Your task to perform on an android device: What are the best selling refrigerators at Home Depot? Image 0: 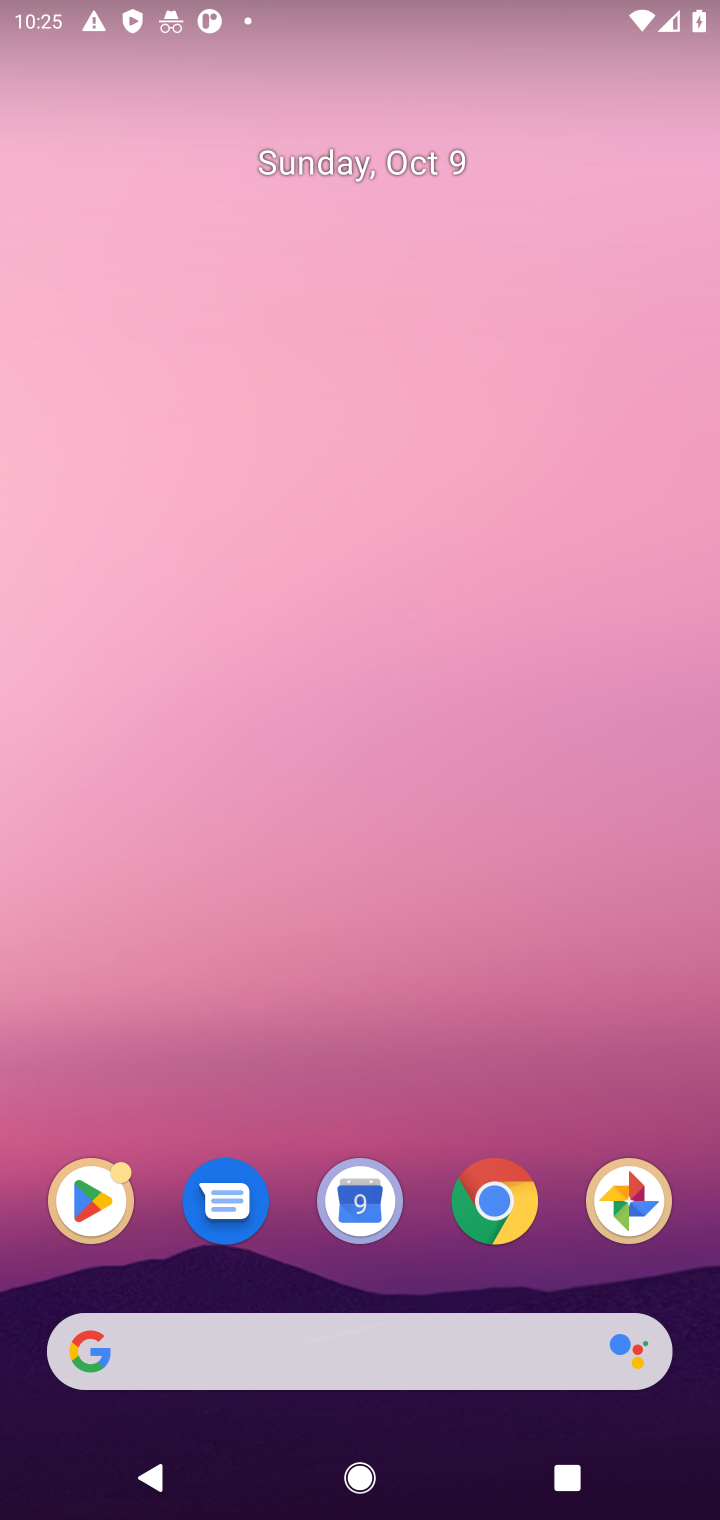
Step 0: click (489, 1211)
Your task to perform on an android device: What are the best selling refrigerators at Home Depot? Image 1: 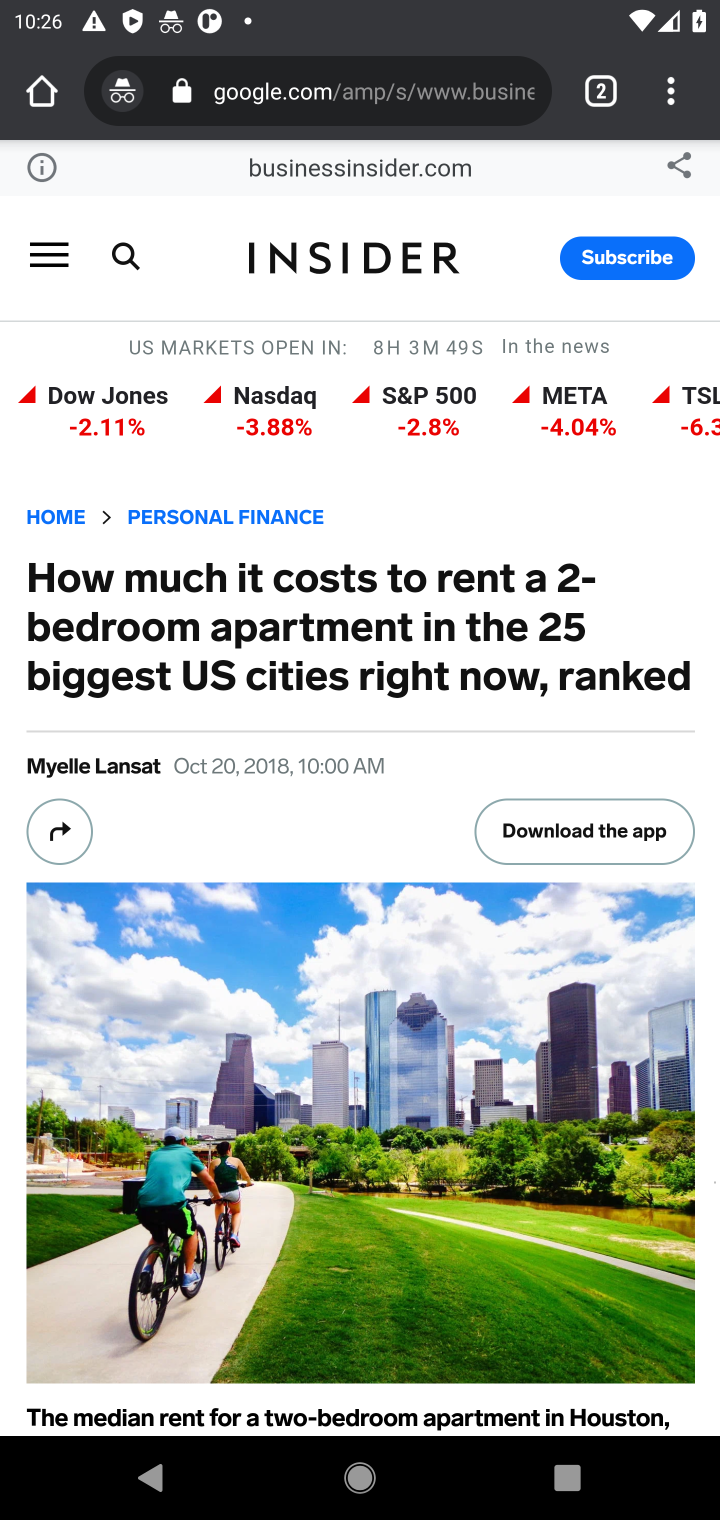
Step 1: click (300, 77)
Your task to perform on an android device: What are the best selling refrigerators at Home Depot? Image 2: 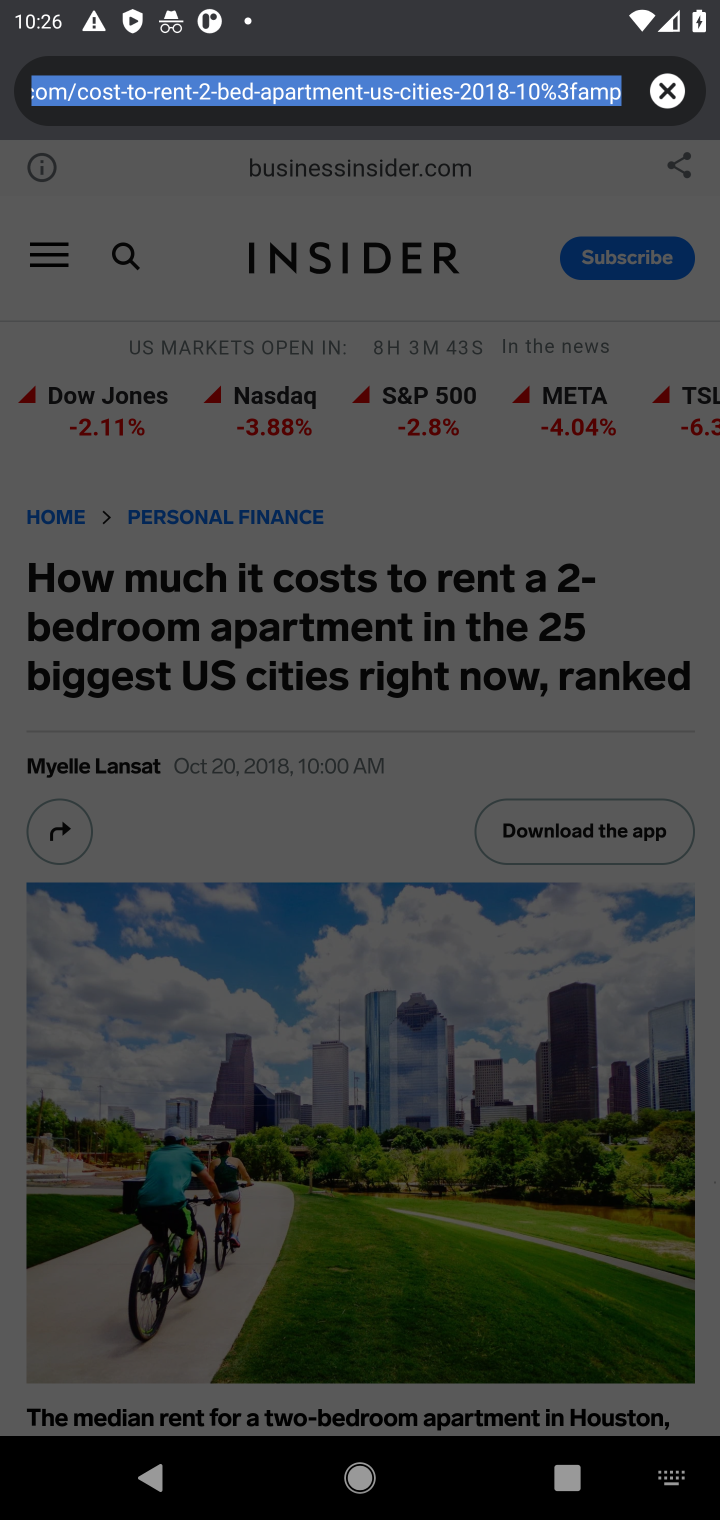
Step 2: type "Home depot"
Your task to perform on an android device: What are the best selling refrigerators at Home Depot? Image 3: 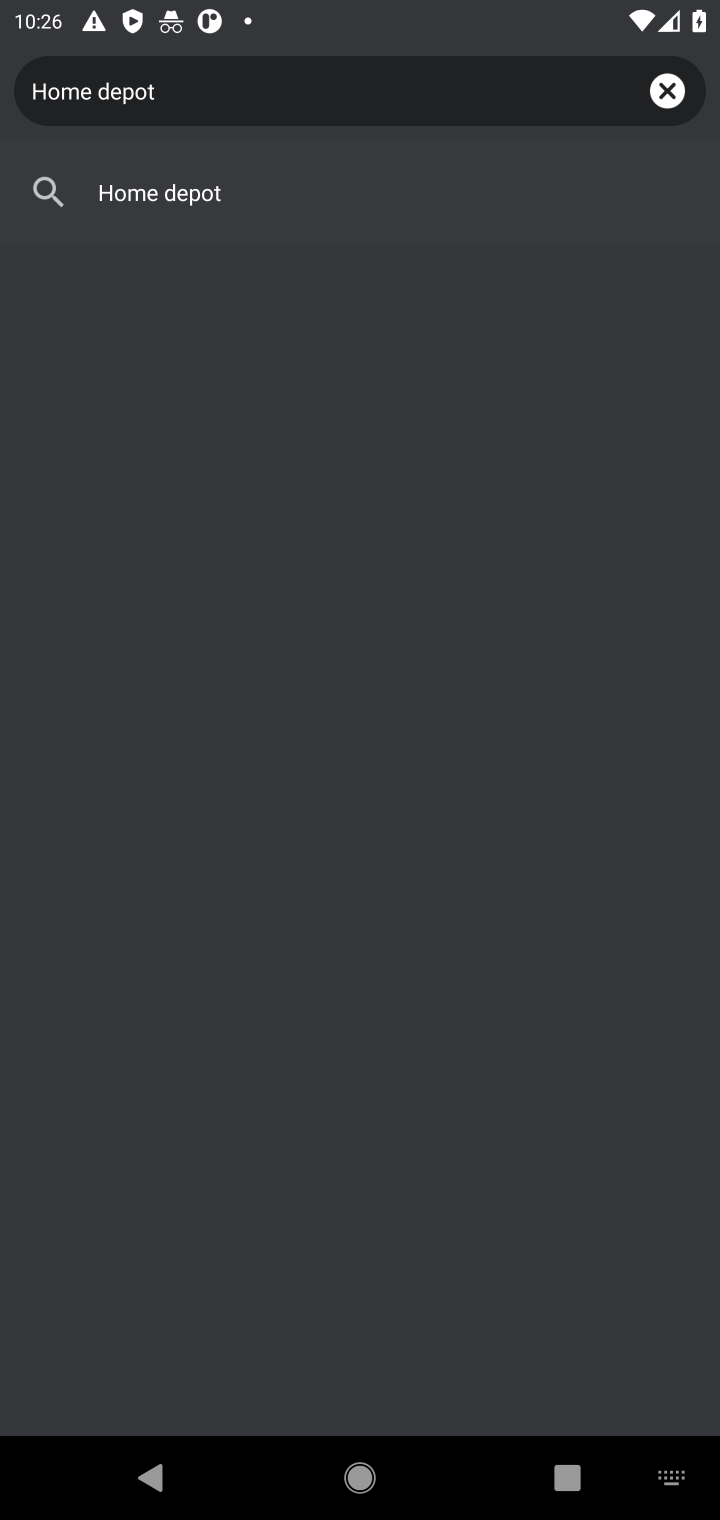
Step 3: click (145, 184)
Your task to perform on an android device: What are the best selling refrigerators at Home Depot? Image 4: 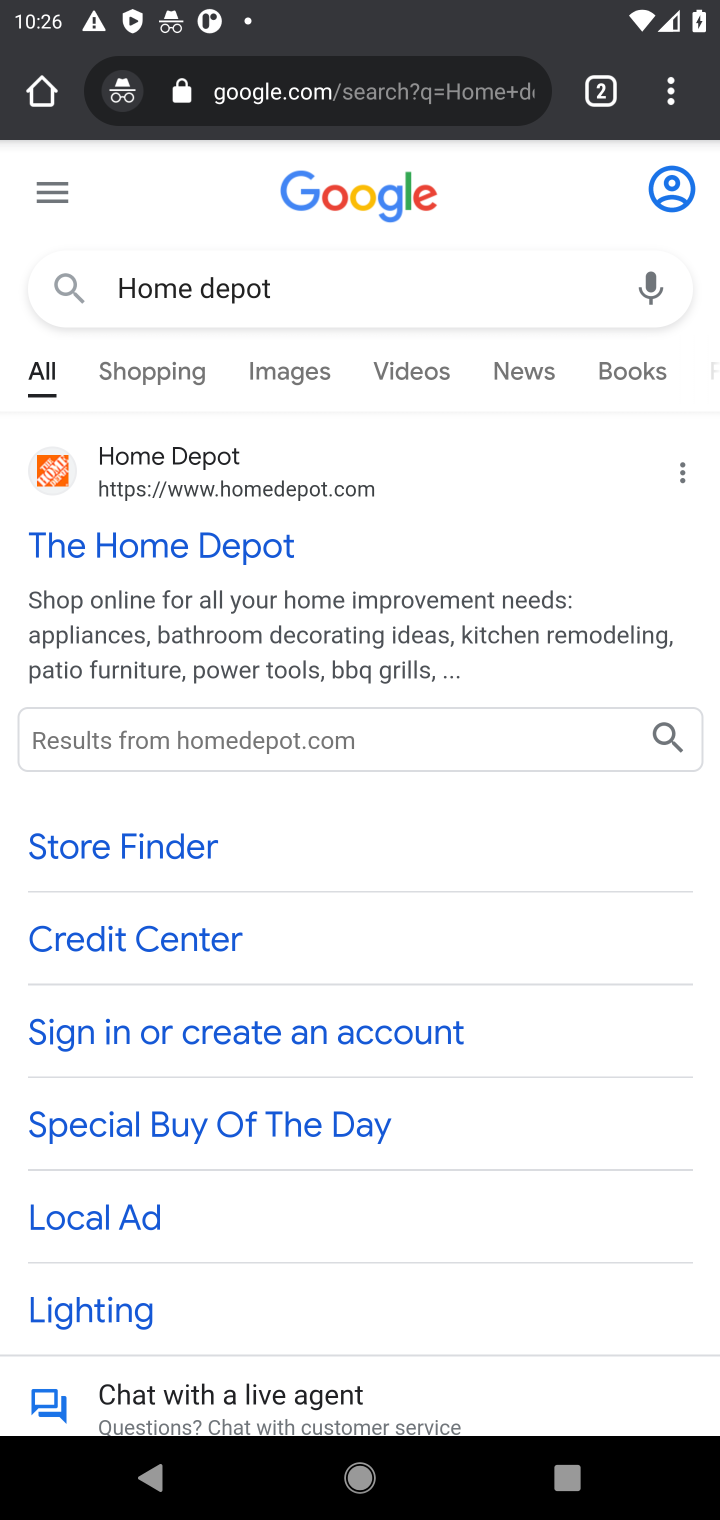
Step 4: click (218, 569)
Your task to perform on an android device: What are the best selling refrigerators at Home Depot? Image 5: 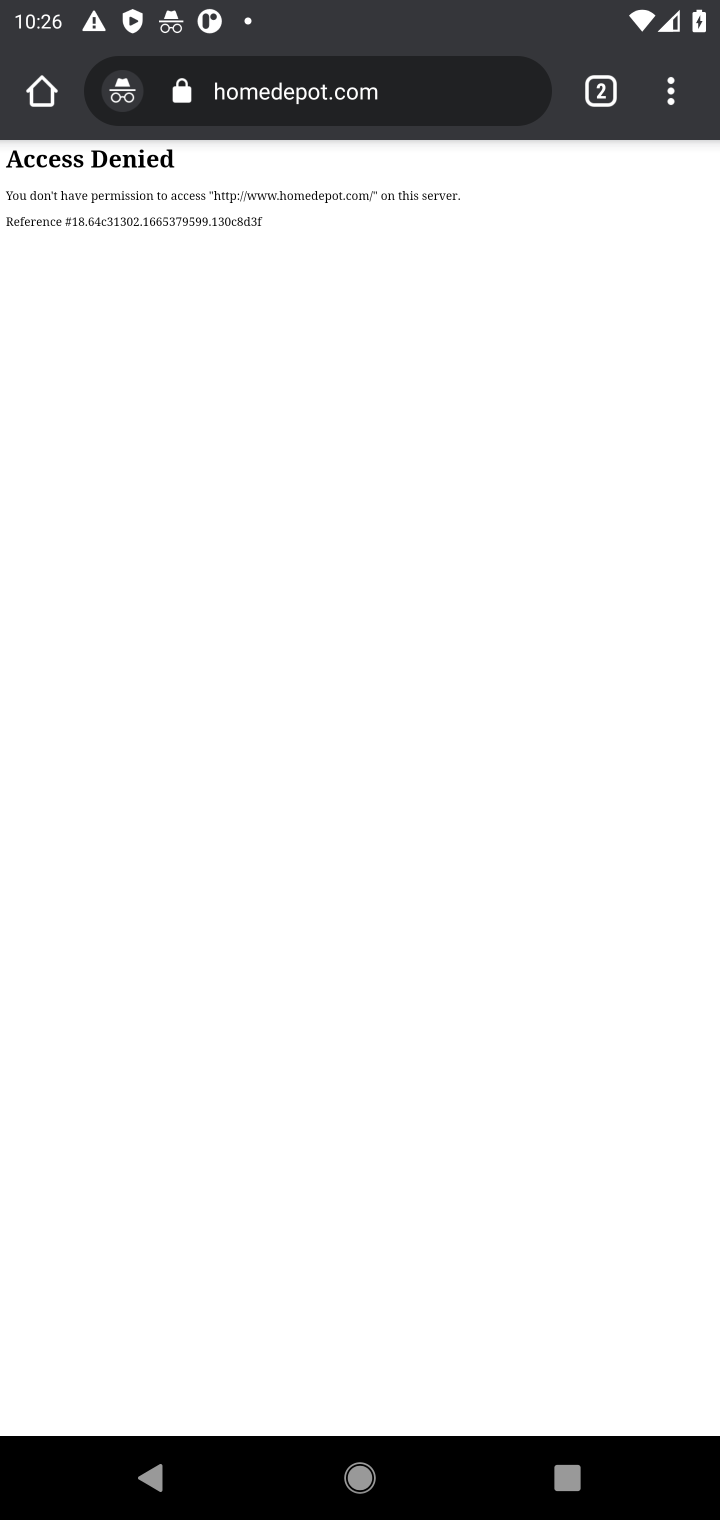
Step 5: task complete